Your task to perform on an android device: toggle notification dots Image 0: 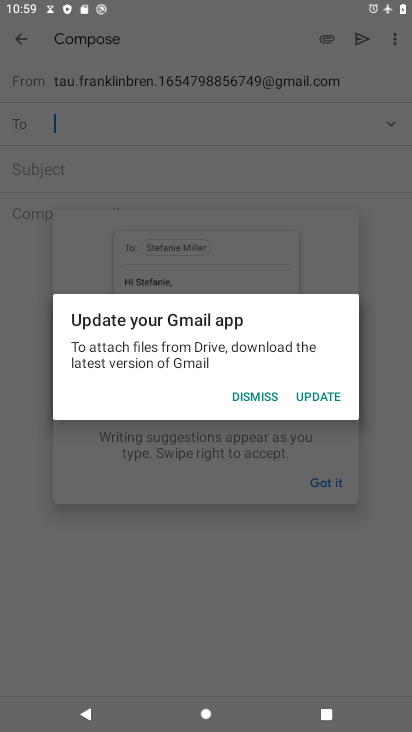
Step 0: press home button
Your task to perform on an android device: toggle notification dots Image 1: 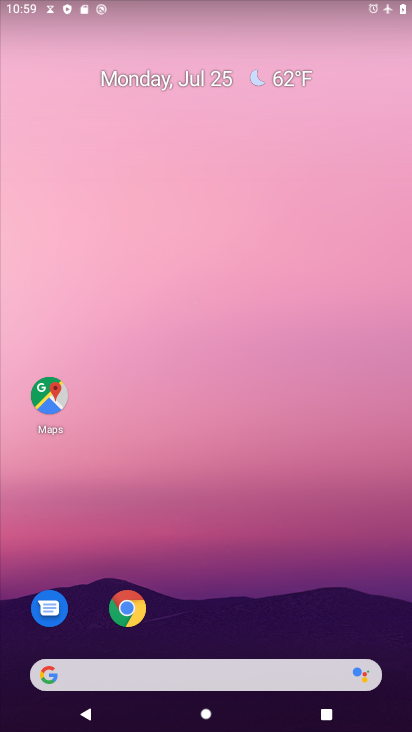
Step 1: drag from (193, 690) to (380, 11)
Your task to perform on an android device: toggle notification dots Image 2: 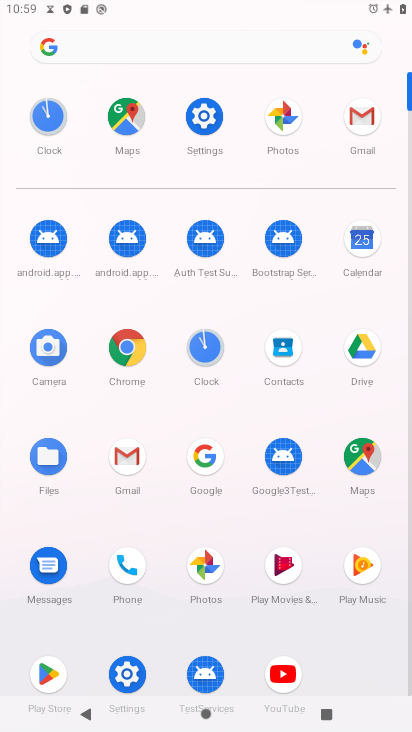
Step 2: click (205, 116)
Your task to perform on an android device: toggle notification dots Image 3: 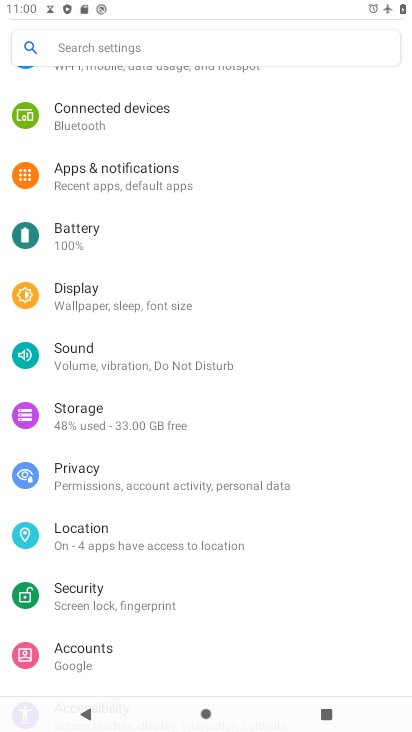
Step 3: click (155, 174)
Your task to perform on an android device: toggle notification dots Image 4: 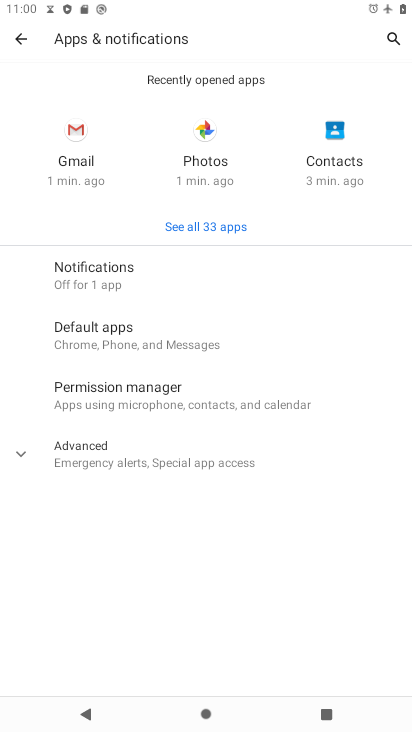
Step 4: click (103, 276)
Your task to perform on an android device: toggle notification dots Image 5: 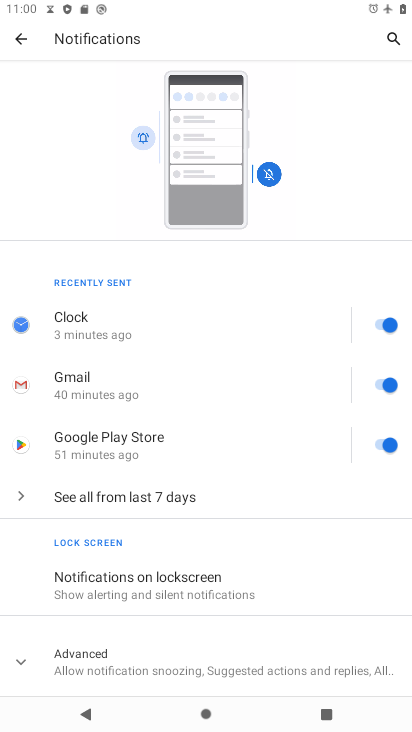
Step 5: click (106, 660)
Your task to perform on an android device: toggle notification dots Image 6: 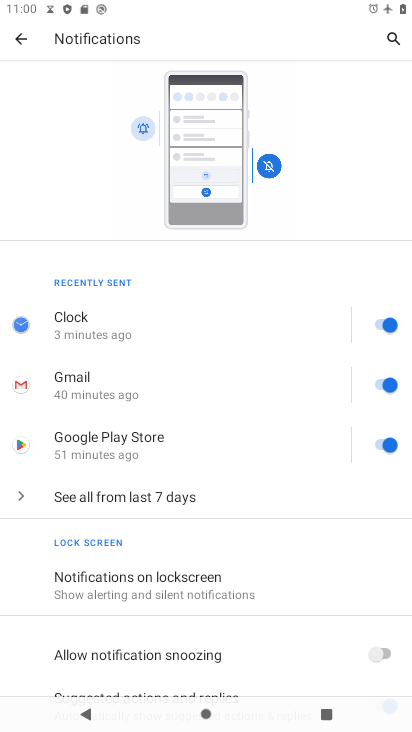
Step 6: drag from (144, 661) to (246, 405)
Your task to perform on an android device: toggle notification dots Image 7: 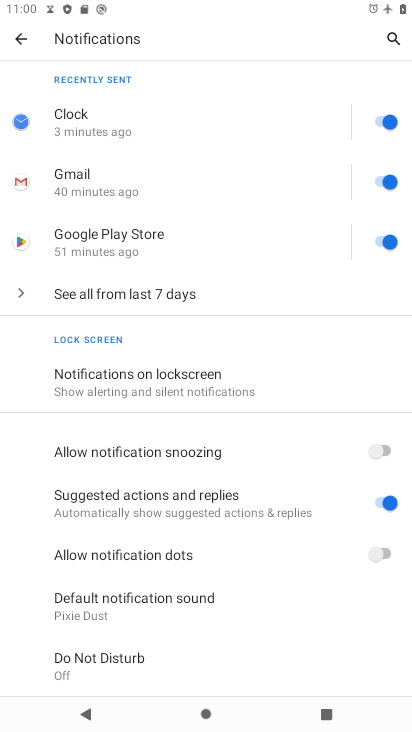
Step 7: click (386, 546)
Your task to perform on an android device: toggle notification dots Image 8: 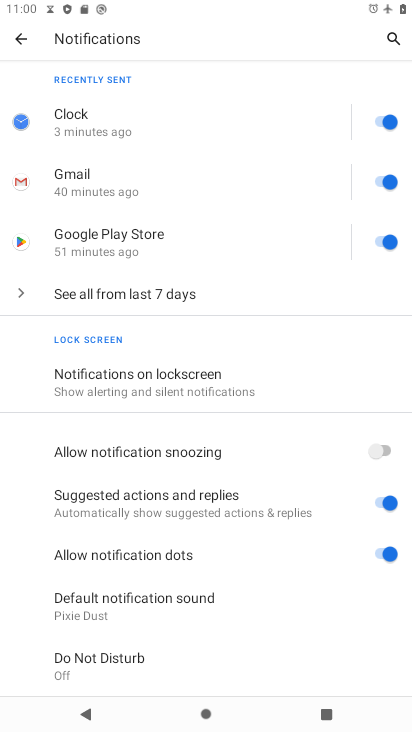
Step 8: task complete